Your task to perform on an android device: Show me popular games on the Play Store Image 0: 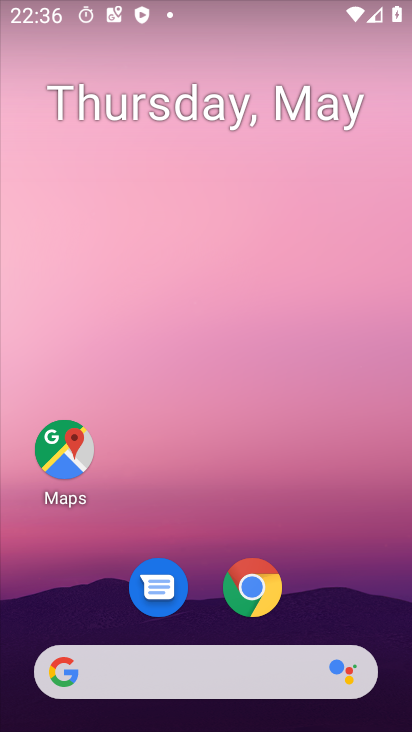
Step 0: drag from (347, 614) to (343, 6)
Your task to perform on an android device: Show me popular games on the Play Store Image 1: 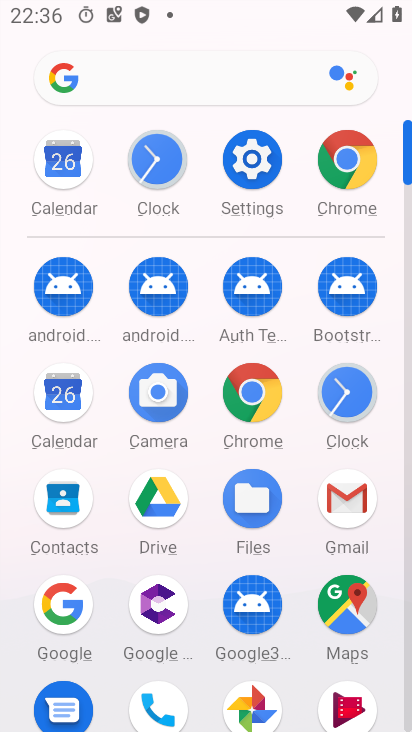
Step 1: click (410, 608)
Your task to perform on an android device: Show me popular games on the Play Store Image 2: 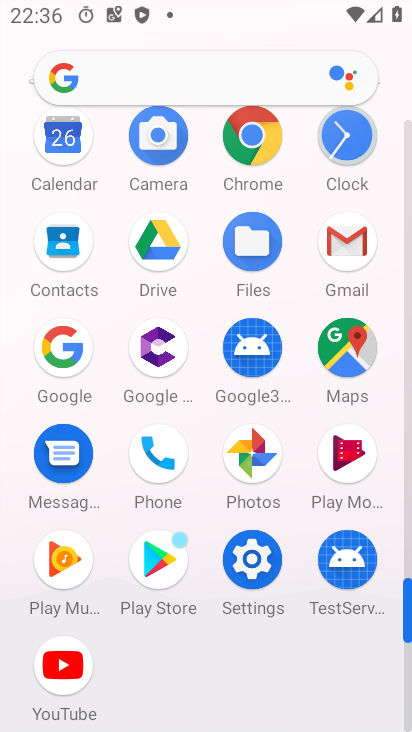
Step 2: click (160, 568)
Your task to perform on an android device: Show me popular games on the Play Store Image 3: 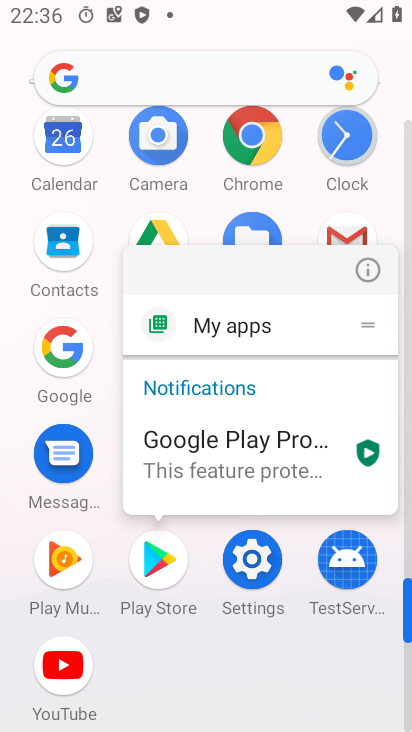
Step 3: click (160, 568)
Your task to perform on an android device: Show me popular games on the Play Store Image 4: 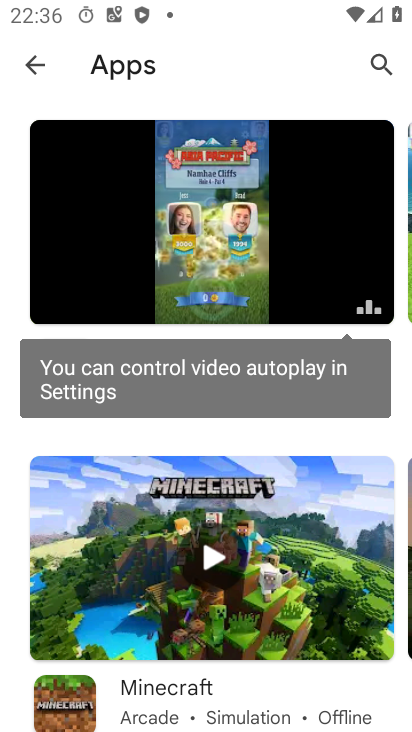
Step 4: drag from (298, 514) to (270, 195)
Your task to perform on an android device: Show me popular games on the Play Store Image 5: 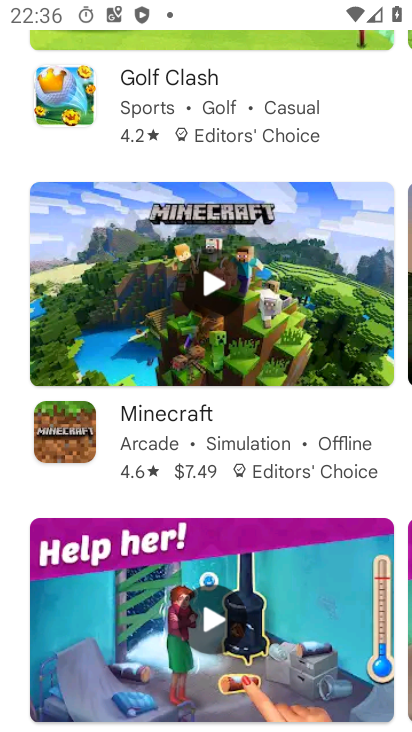
Step 5: drag from (254, 327) to (264, 712)
Your task to perform on an android device: Show me popular games on the Play Store Image 6: 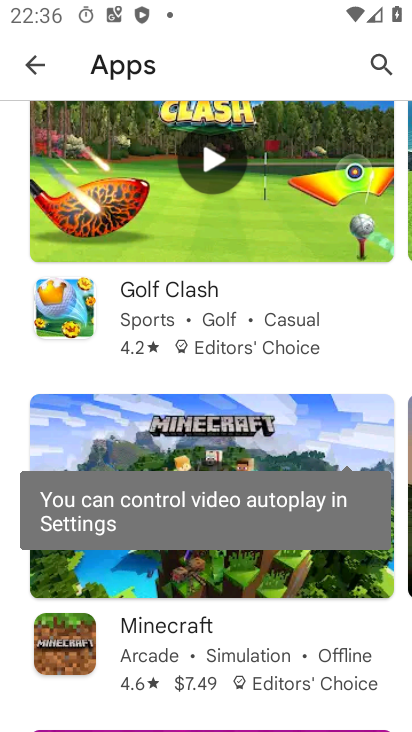
Step 6: drag from (277, 223) to (253, 675)
Your task to perform on an android device: Show me popular games on the Play Store Image 7: 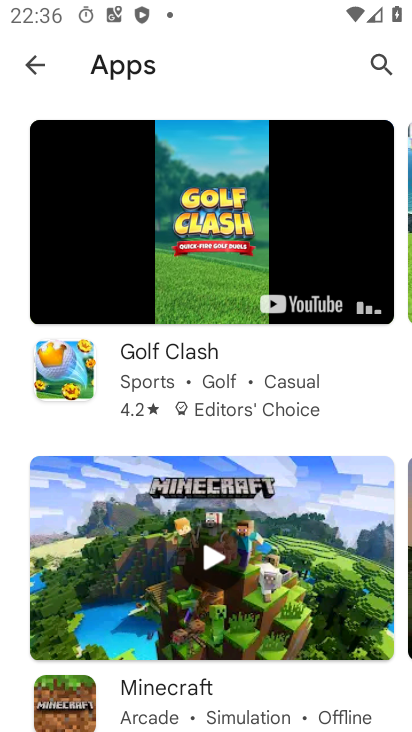
Step 7: drag from (310, 234) to (312, 541)
Your task to perform on an android device: Show me popular games on the Play Store Image 8: 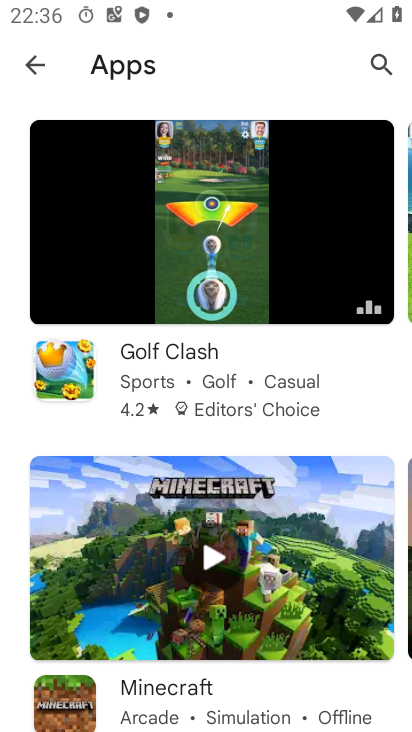
Step 8: click (35, 73)
Your task to perform on an android device: Show me popular games on the Play Store Image 9: 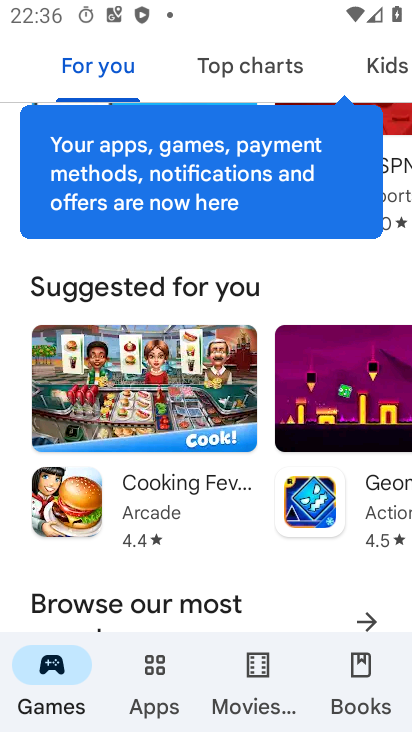
Step 9: click (57, 672)
Your task to perform on an android device: Show me popular games on the Play Store Image 10: 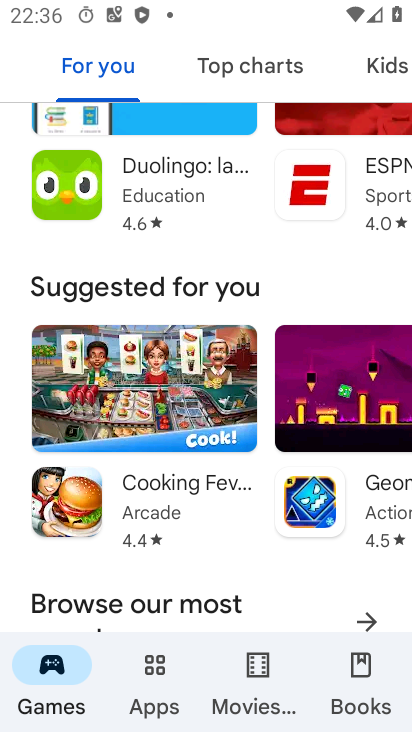
Step 10: drag from (270, 552) to (251, 207)
Your task to perform on an android device: Show me popular games on the Play Store Image 11: 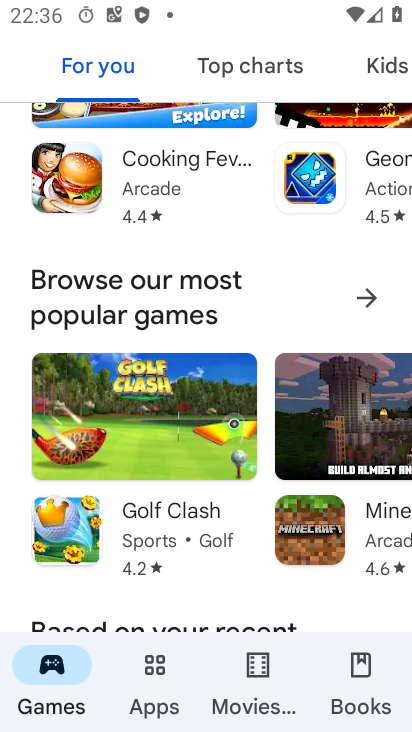
Step 11: click (178, 311)
Your task to perform on an android device: Show me popular games on the Play Store Image 12: 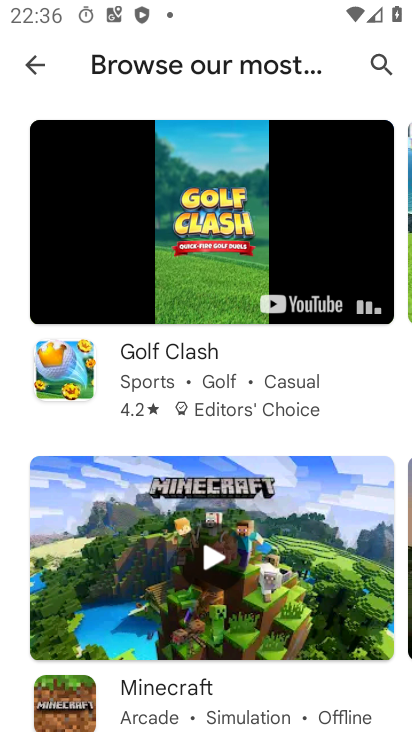
Step 12: task complete